Your task to perform on an android device: Open privacy settings Image 0: 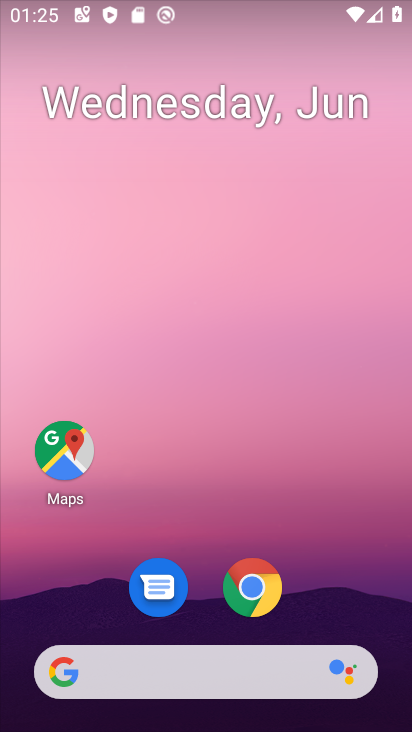
Step 0: drag from (335, 512) to (258, 152)
Your task to perform on an android device: Open privacy settings Image 1: 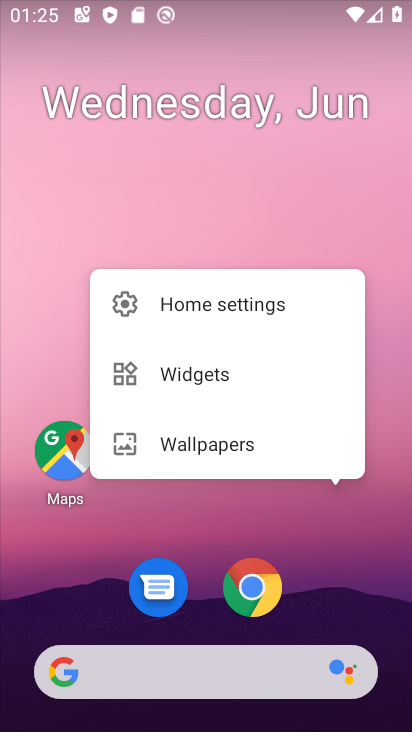
Step 1: click (351, 236)
Your task to perform on an android device: Open privacy settings Image 2: 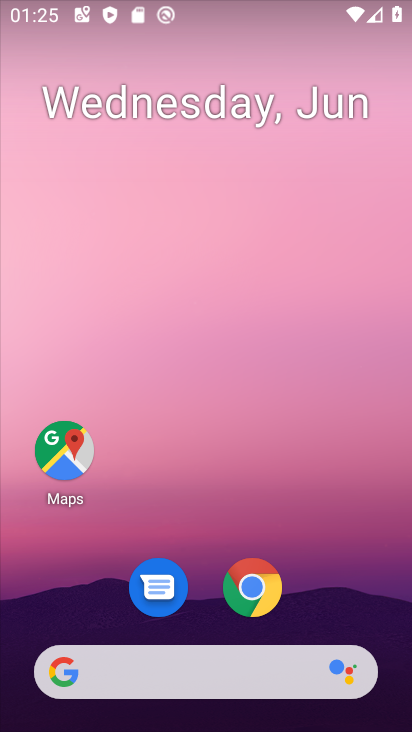
Step 2: drag from (347, 505) to (298, 157)
Your task to perform on an android device: Open privacy settings Image 3: 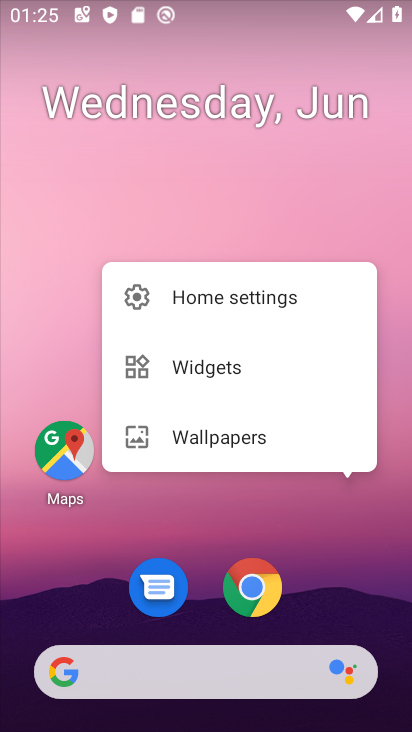
Step 3: click (296, 518)
Your task to perform on an android device: Open privacy settings Image 4: 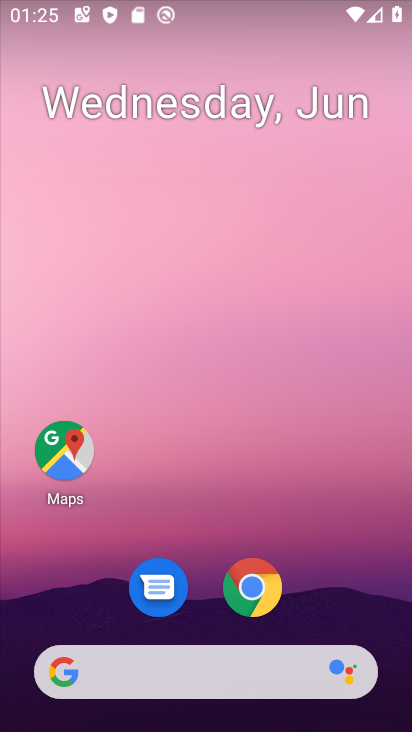
Step 4: drag from (337, 606) to (231, 157)
Your task to perform on an android device: Open privacy settings Image 5: 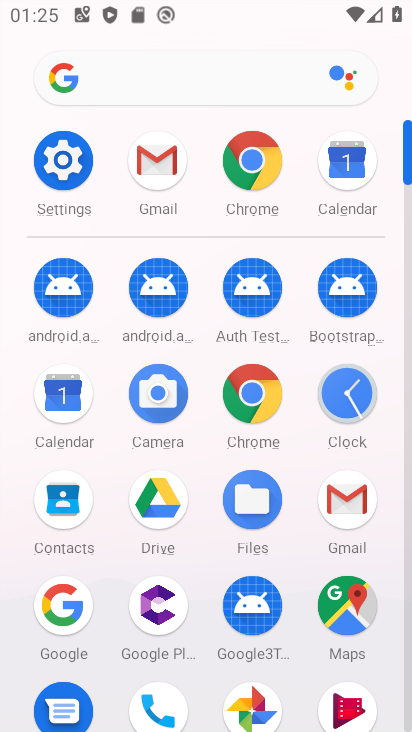
Step 5: click (72, 155)
Your task to perform on an android device: Open privacy settings Image 6: 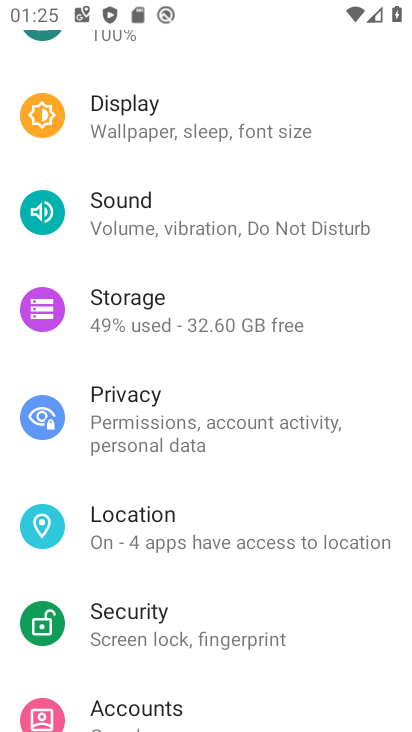
Step 6: drag from (292, 568) to (283, 215)
Your task to perform on an android device: Open privacy settings Image 7: 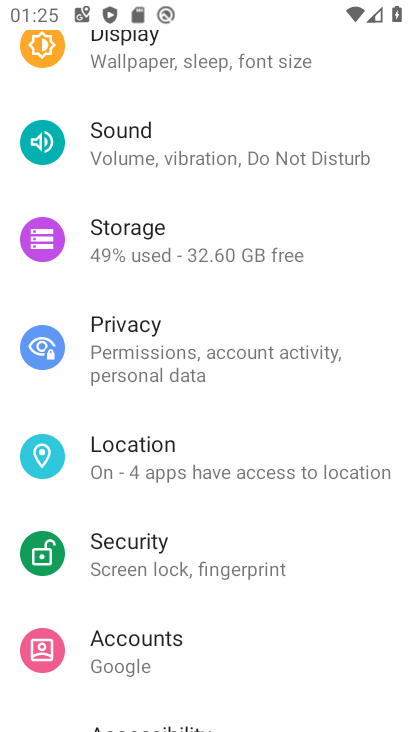
Step 7: click (130, 331)
Your task to perform on an android device: Open privacy settings Image 8: 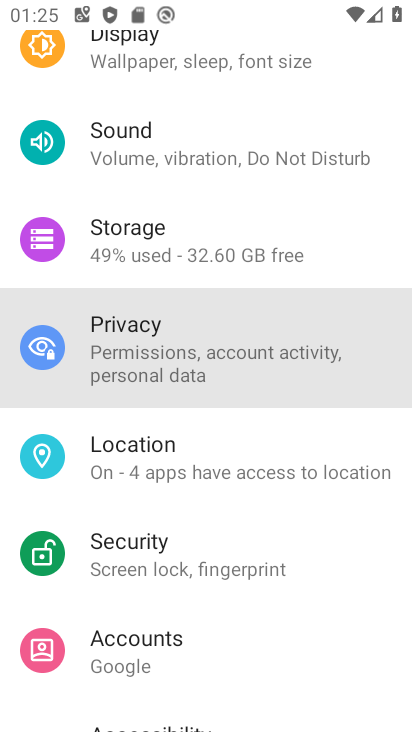
Step 8: click (246, 327)
Your task to perform on an android device: Open privacy settings Image 9: 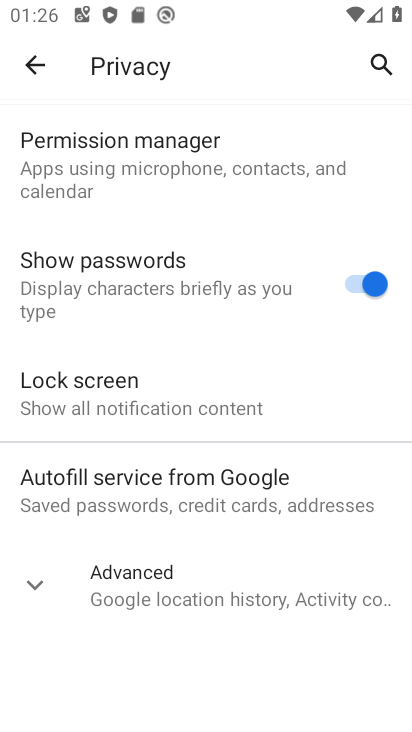
Step 9: task complete